Your task to perform on an android device: Open Maps and search for coffee Image 0: 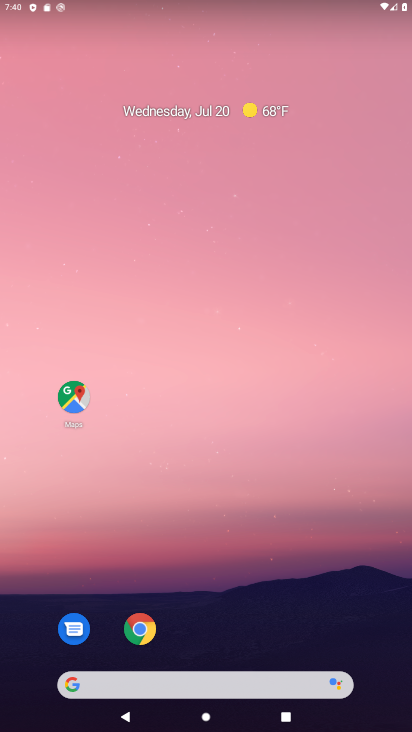
Step 0: drag from (328, 615) to (410, 31)
Your task to perform on an android device: Open Maps and search for coffee Image 1: 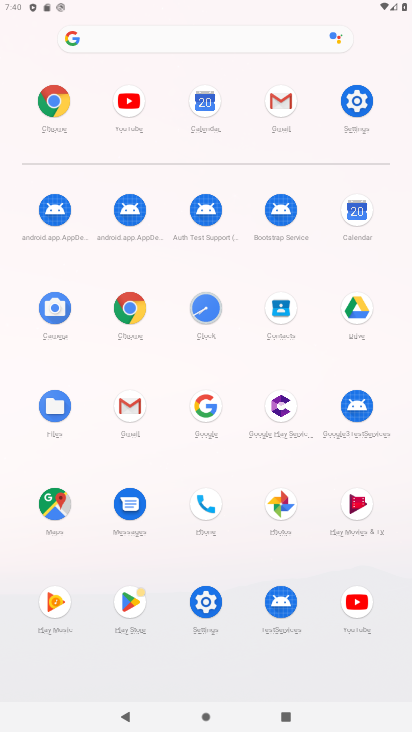
Step 1: click (43, 517)
Your task to perform on an android device: Open Maps and search for coffee Image 2: 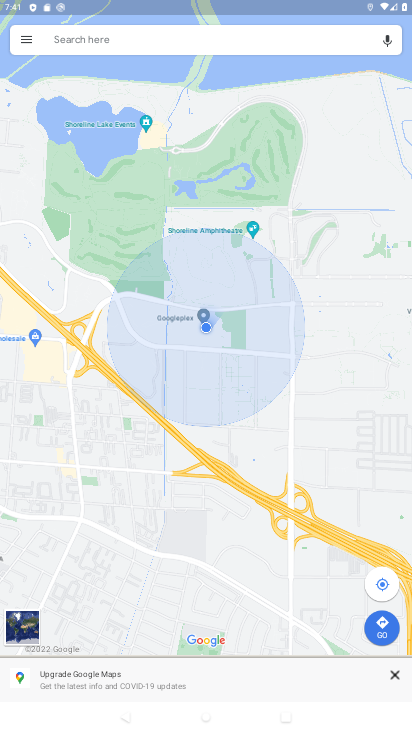
Step 2: click (164, 40)
Your task to perform on an android device: Open Maps and search for coffee Image 3: 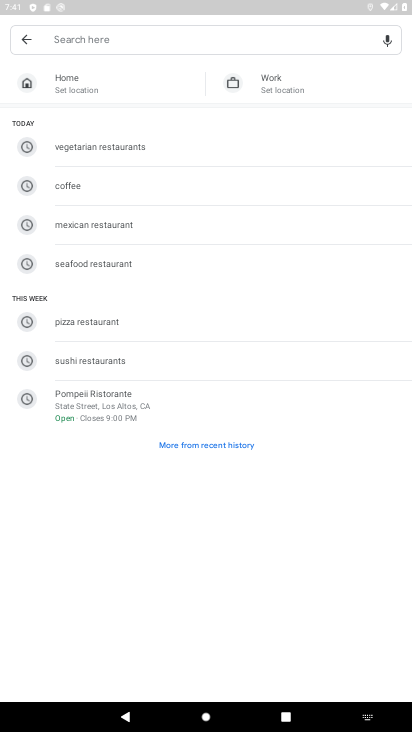
Step 3: type "coffee"
Your task to perform on an android device: Open Maps and search for coffee Image 4: 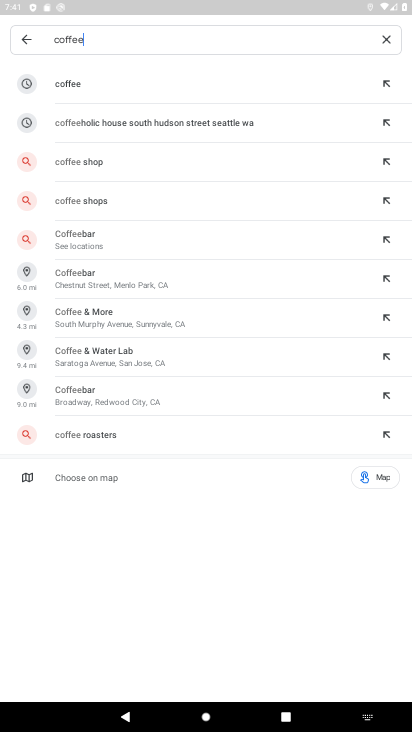
Step 4: click (165, 77)
Your task to perform on an android device: Open Maps and search for coffee Image 5: 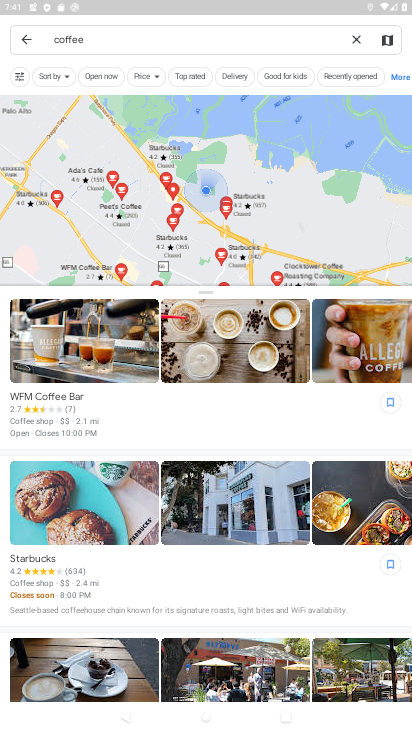
Step 5: task complete